Your task to perform on an android device: turn off airplane mode Image 0: 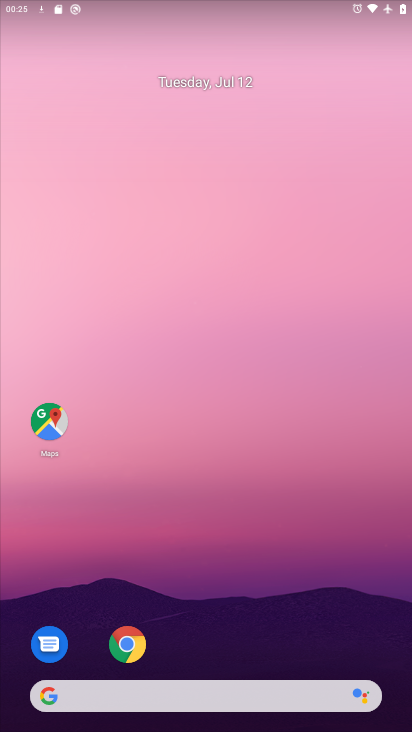
Step 0: drag from (270, 673) to (283, 304)
Your task to perform on an android device: turn off airplane mode Image 1: 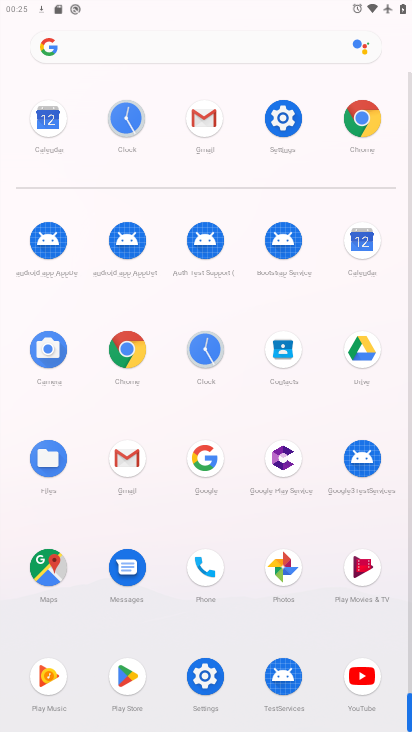
Step 1: click (281, 122)
Your task to perform on an android device: turn off airplane mode Image 2: 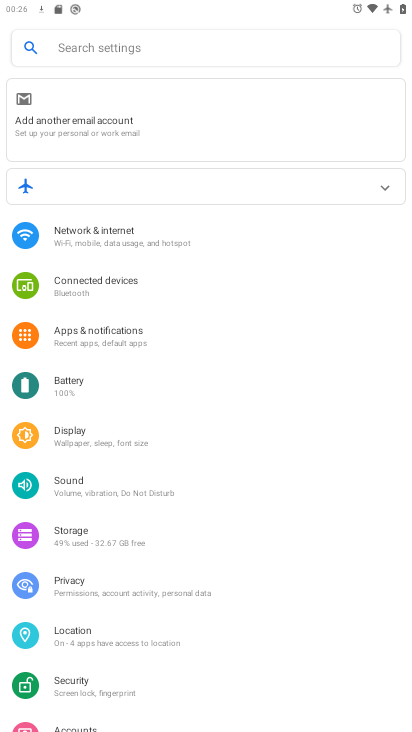
Step 2: click (134, 233)
Your task to perform on an android device: turn off airplane mode Image 3: 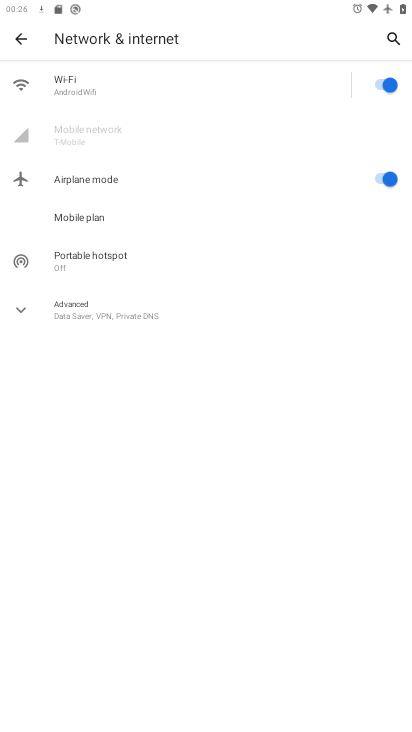
Step 3: click (382, 180)
Your task to perform on an android device: turn off airplane mode Image 4: 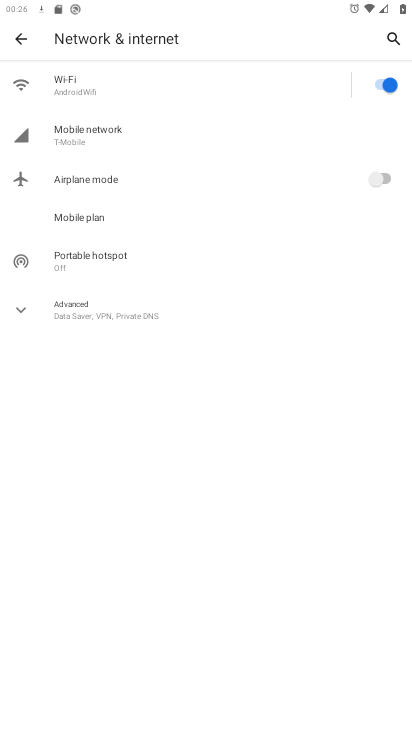
Step 4: task complete